Your task to perform on an android device: Search for "macbook pro 15 inch" on newegg, select the first entry, add it to the cart, then select checkout. Image 0: 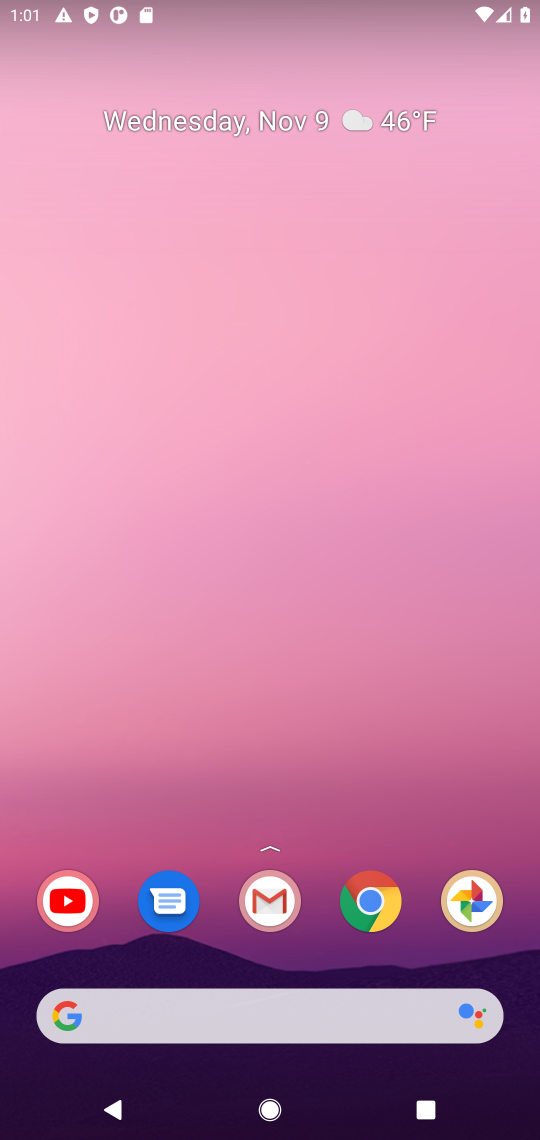
Step 0: click (387, 898)
Your task to perform on an android device: Search for "macbook pro 15 inch" on newegg, select the first entry, add it to the cart, then select checkout. Image 1: 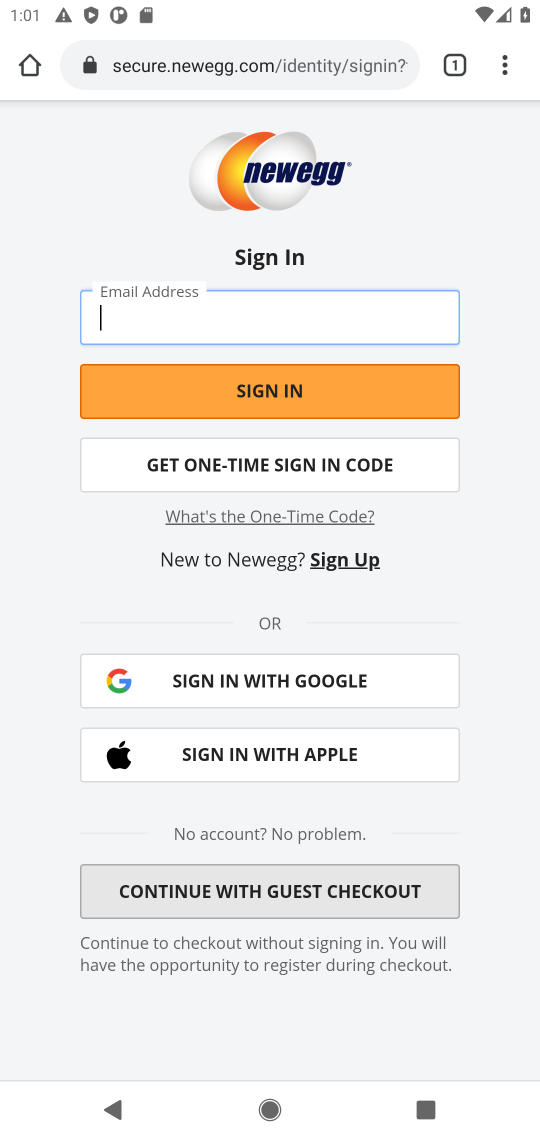
Step 1: press back button
Your task to perform on an android device: Search for "macbook pro 15 inch" on newegg, select the first entry, add it to the cart, then select checkout. Image 2: 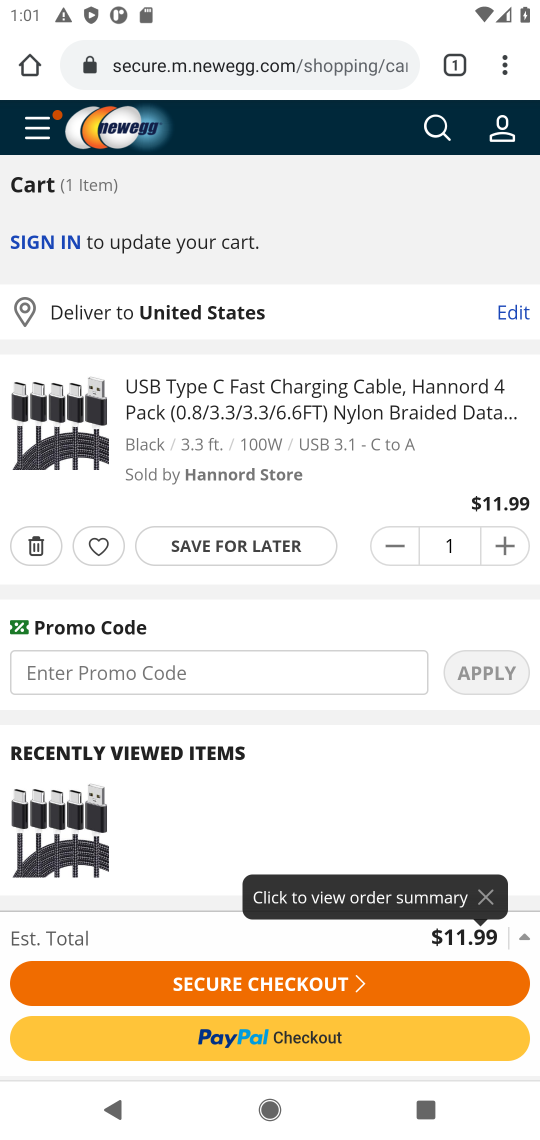
Step 2: click (439, 122)
Your task to perform on an android device: Search for "macbook pro 15 inch" on newegg, select the first entry, add it to the cart, then select checkout. Image 3: 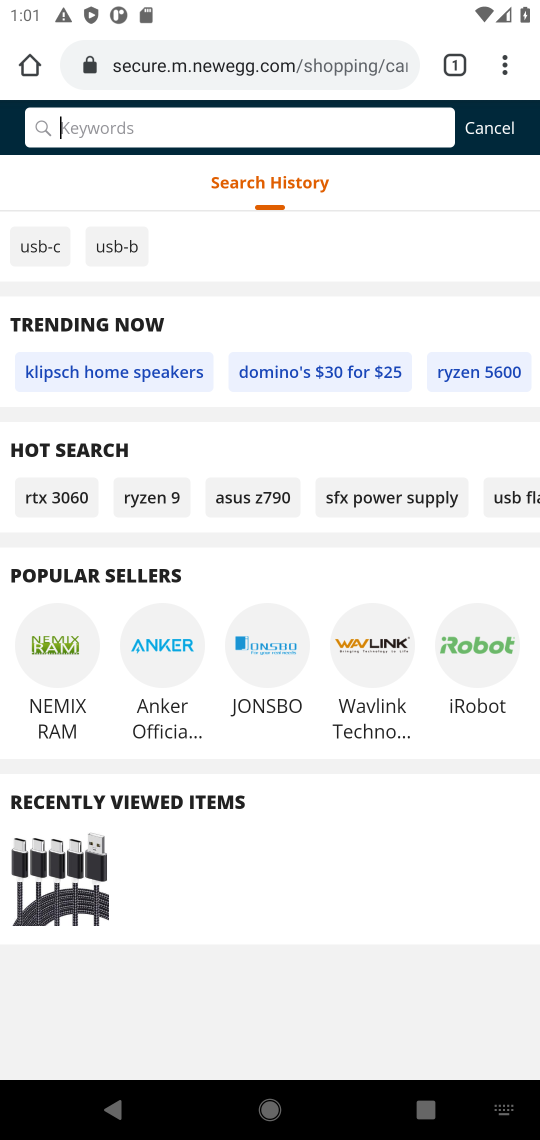
Step 3: type "macbook pro 15 inch"
Your task to perform on an android device: Search for "macbook pro 15 inch" on newegg, select the first entry, add it to the cart, then select checkout. Image 4: 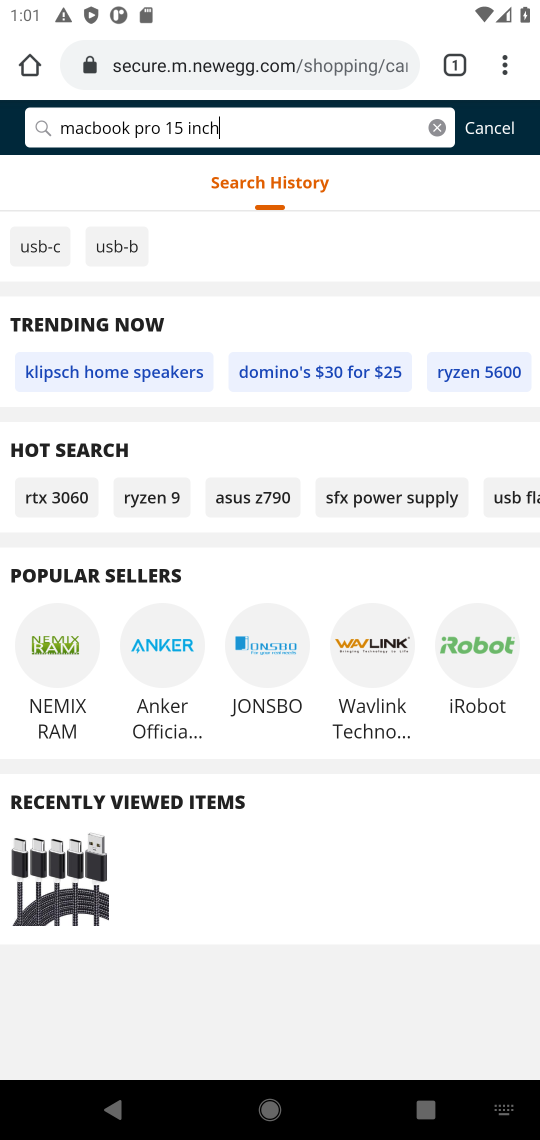
Step 4: press enter
Your task to perform on an android device: Search for "macbook pro 15 inch" on newegg, select the first entry, add it to the cart, then select checkout. Image 5: 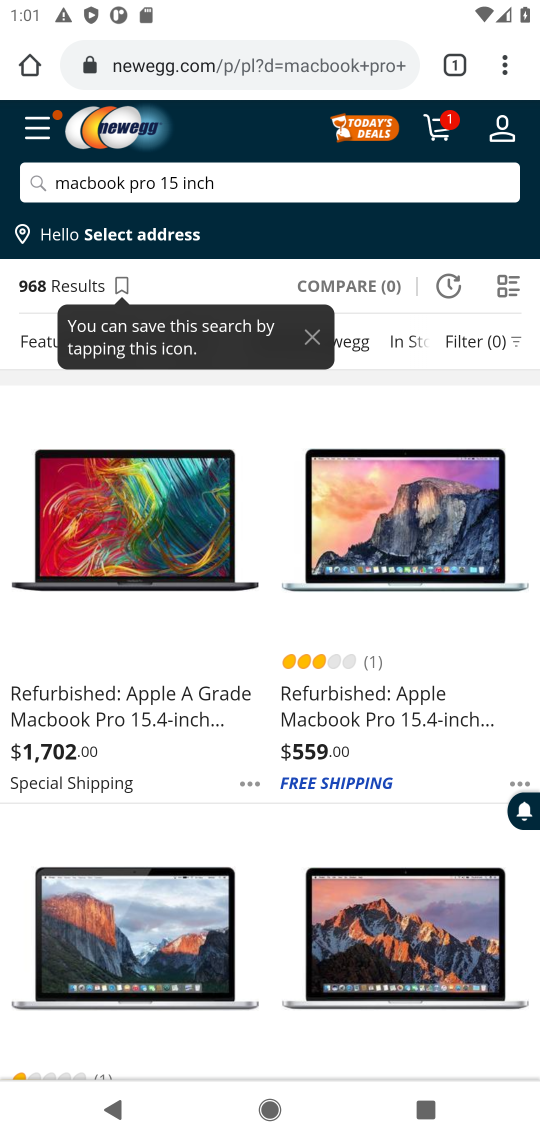
Step 5: drag from (206, 643) to (309, 344)
Your task to perform on an android device: Search for "macbook pro 15 inch" on newegg, select the first entry, add it to the cart, then select checkout. Image 6: 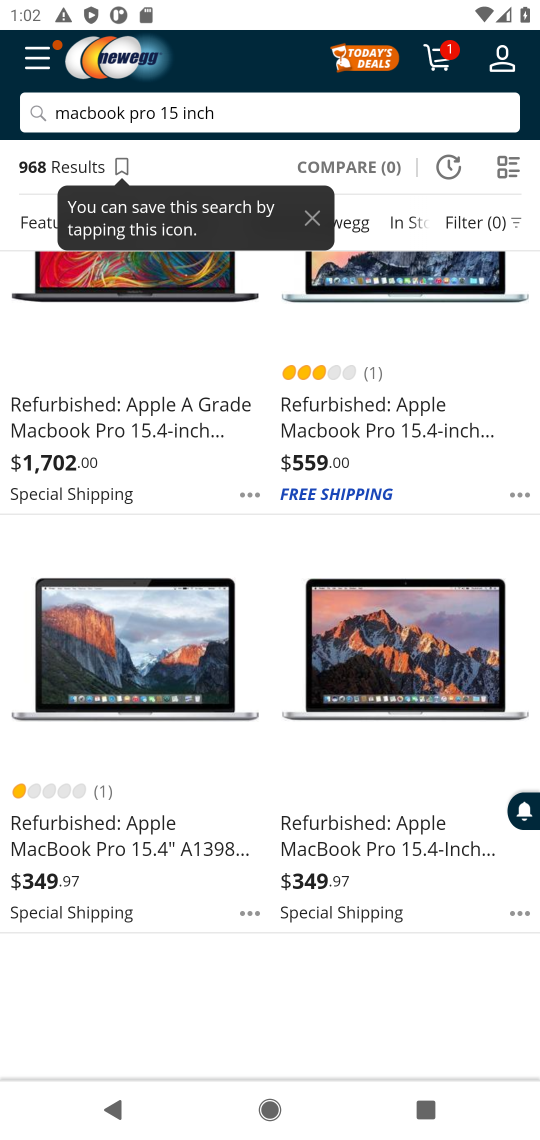
Step 6: click (159, 283)
Your task to perform on an android device: Search for "macbook pro 15 inch" on newegg, select the first entry, add it to the cart, then select checkout. Image 7: 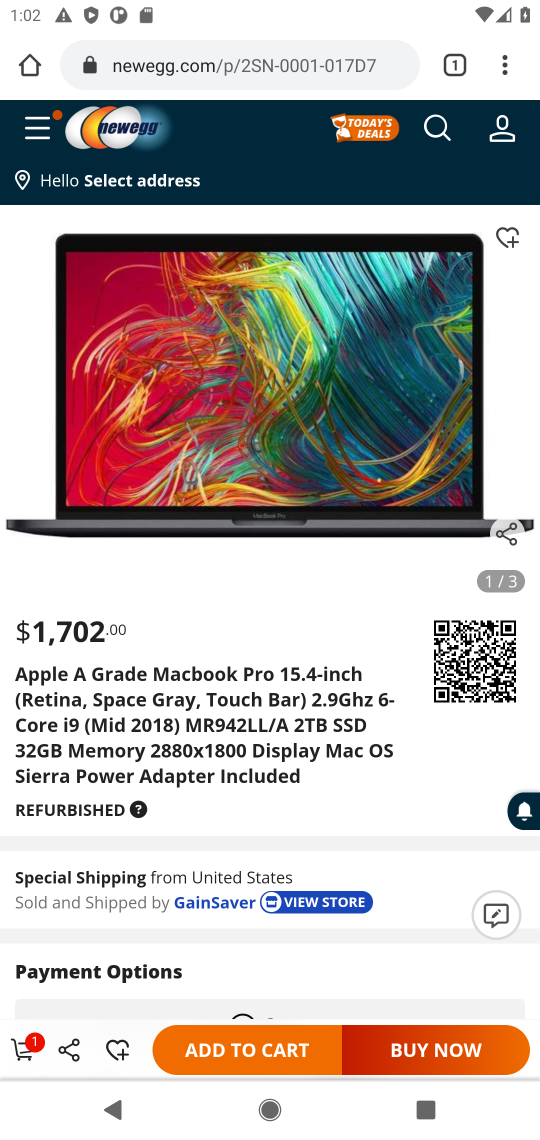
Step 7: click (242, 1049)
Your task to perform on an android device: Search for "macbook pro 15 inch" on newegg, select the first entry, add it to the cart, then select checkout. Image 8: 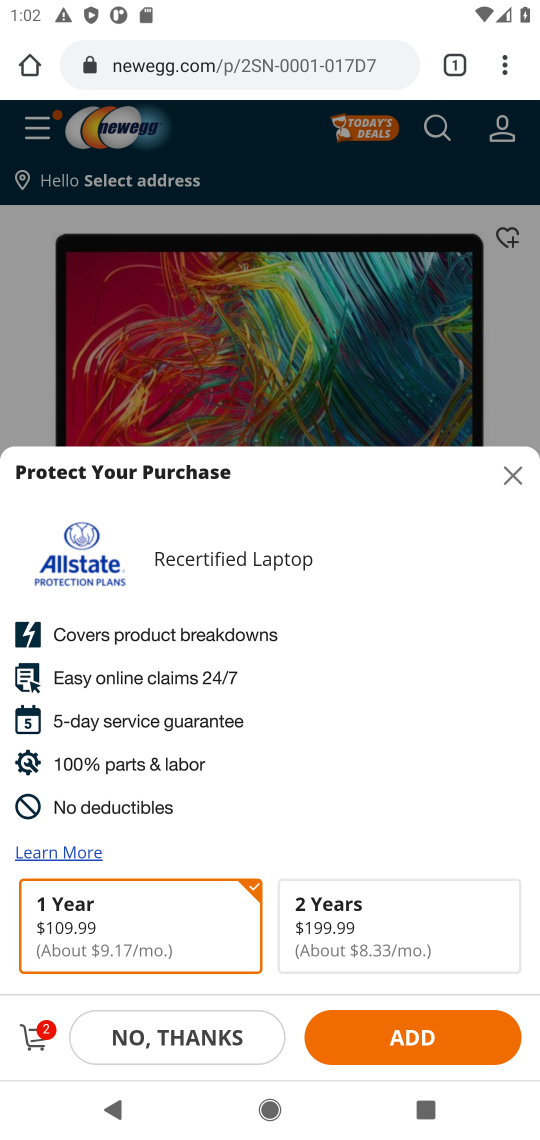
Step 8: click (32, 1043)
Your task to perform on an android device: Search for "macbook pro 15 inch" on newegg, select the first entry, add it to the cart, then select checkout. Image 9: 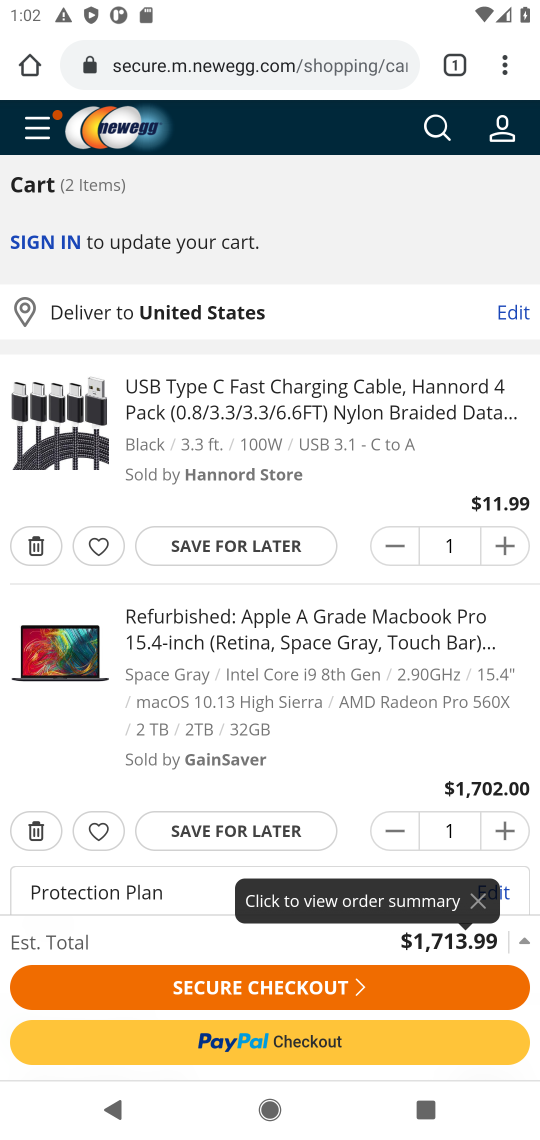
Step 9: click (287, 991)
Your task to perform on an android device: Search for "macbook pro 15 inch" on newegg, select the first entry, add it to the cart, then select checkout. Image 10: 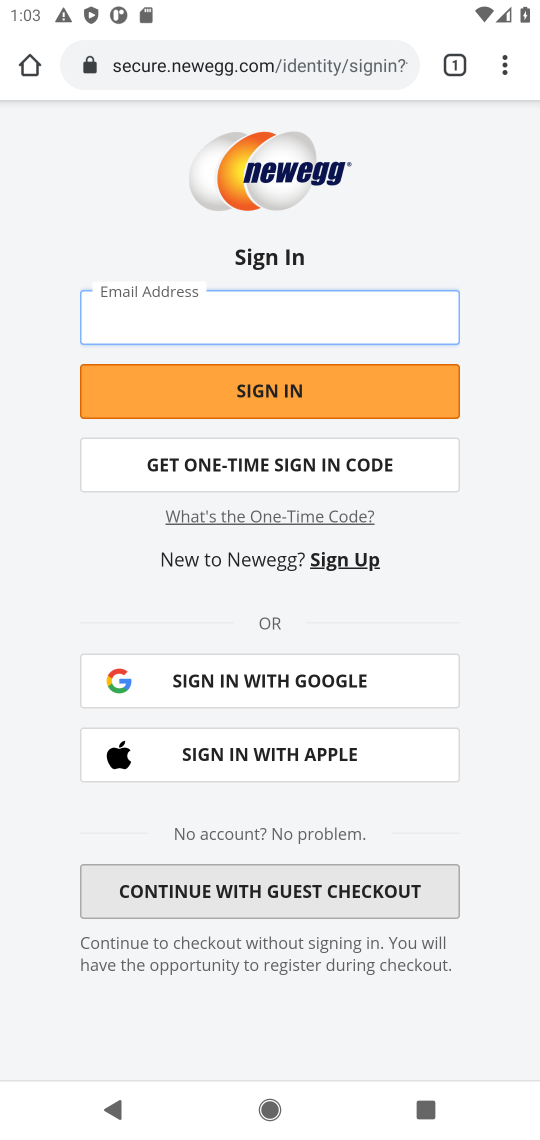
Step 10: task complete